Your task to perform on an android device: check out phone information Image 0: 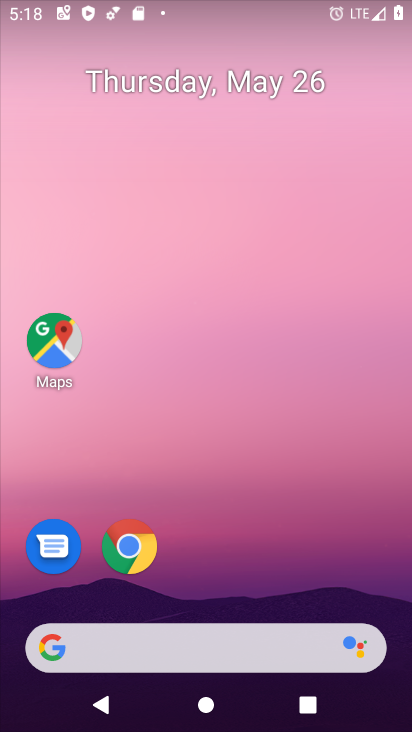
Step 0: drag from (229, 530) to (244, 78)
Your task to perform on an android device: check out phone information Image 1: 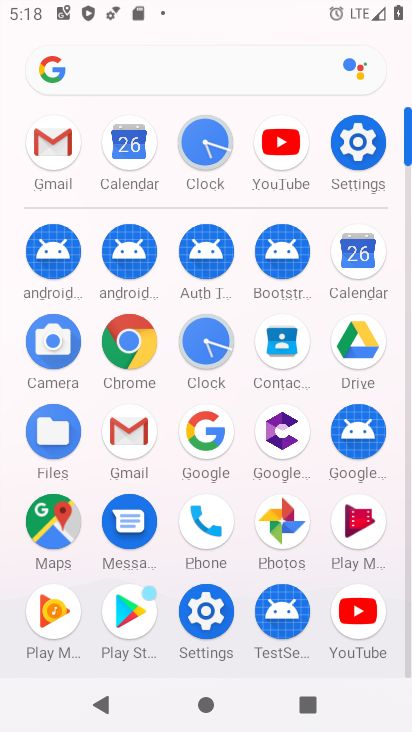
Step 1: click (370, 141)
Your task to perform on an android device: check out phone information Image 2: 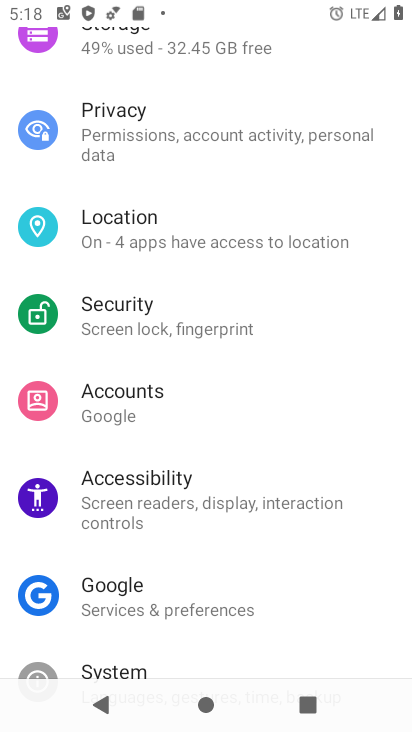
Step 2: drag from (295, 126) to (201, 638)
Your task to perform on an android device: check out phone information Image 3: 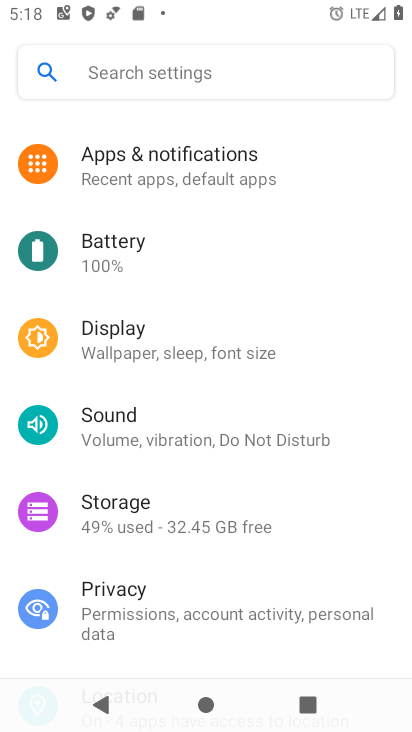
Step 3: drag from (210, 201) to (157, 646)
Your task to perform on an android device: check out phone information Image 4: 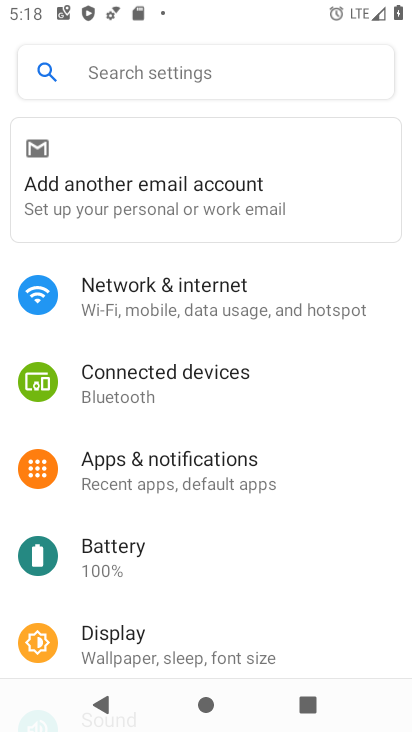
Step 4: drag from (167, 616) to (220, 70)
Your task to perform on an android device: check out phone information Image 5: 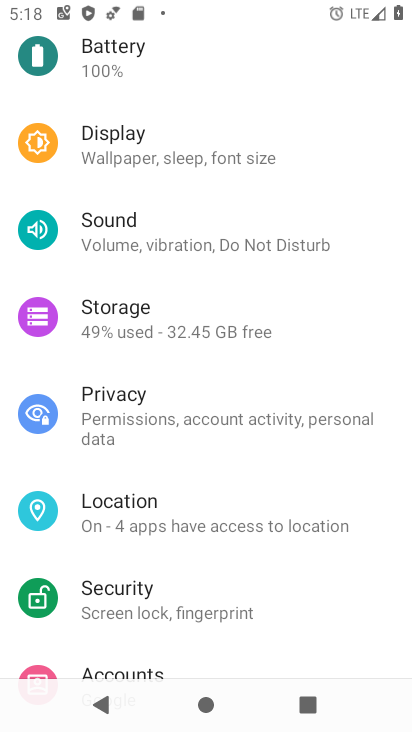
Step 5: drag from (159, 586) to (205, 3)
Your task to perform on an android device: check out phone information Image 6: 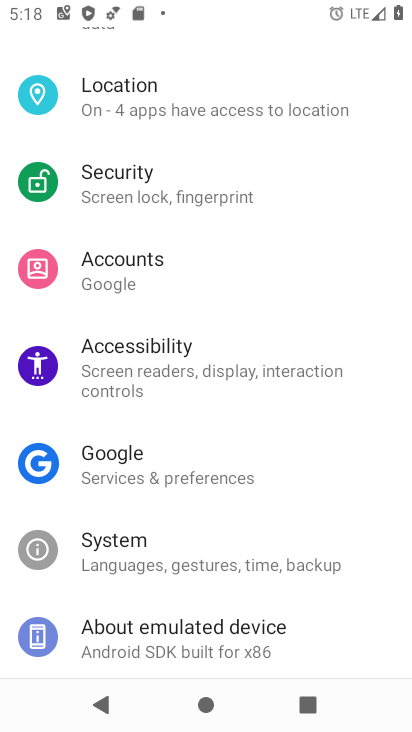
Step 6: drag from (140, 644) to (212, 31)
Your task to perform on an android device: check out phone information Image 7: 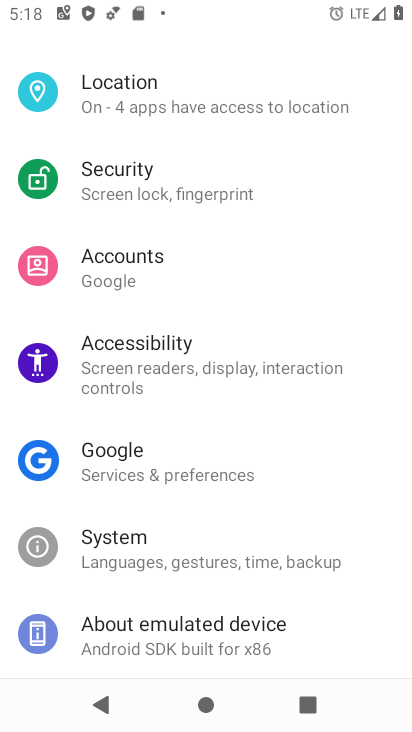
Step 7: click (108, 649)
Your task to perform on an android device: check out phone information Image 8: 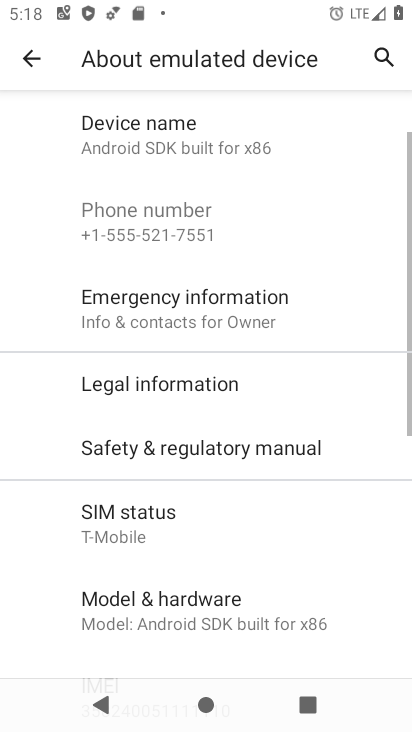
Step 8: task complete